Your task to perform on an android device: change the clock display to show seconds Image 0: 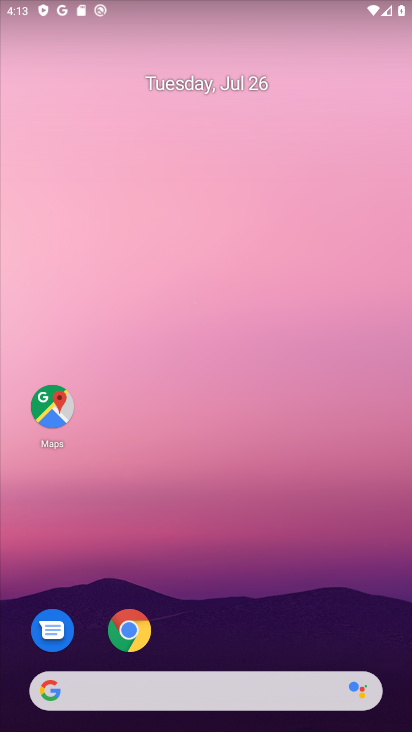
Step 0: drag from (314, 615) to (347, 27)
Your task to perform on an android device: change the clock display to show seconds Image 1: 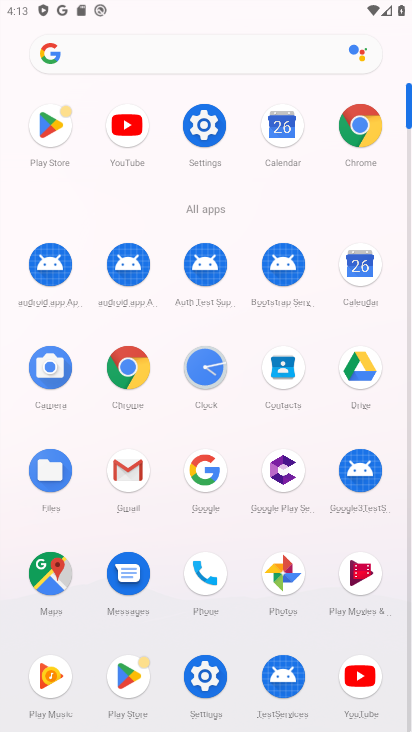
Step 1: click (216, 377)
Your task to perform on an android device: change the clock display to show seconds Image 2: 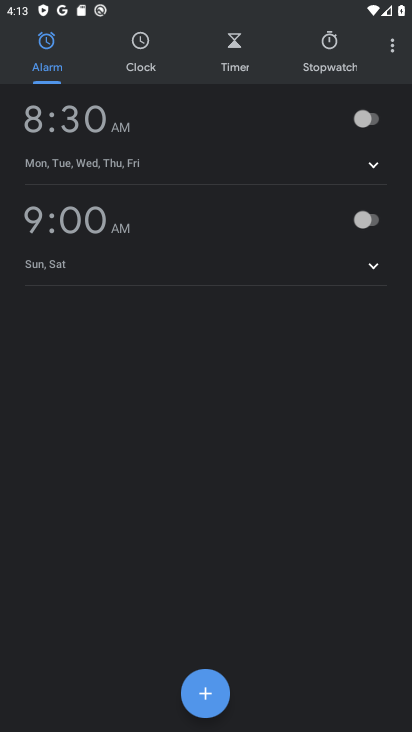
Step 2: click (388, 48)
Your task to perform on an android device: change the clock display to show seconds Image 3: 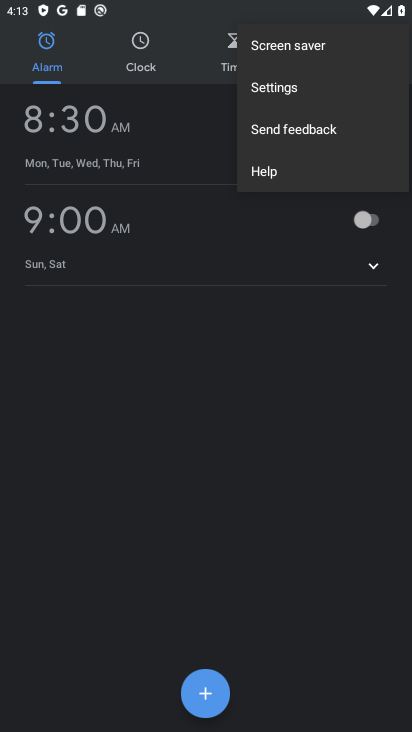
Step 3: click (271, 87)
Your task to perform on an android device: change the clock display to show seconds Image 4: 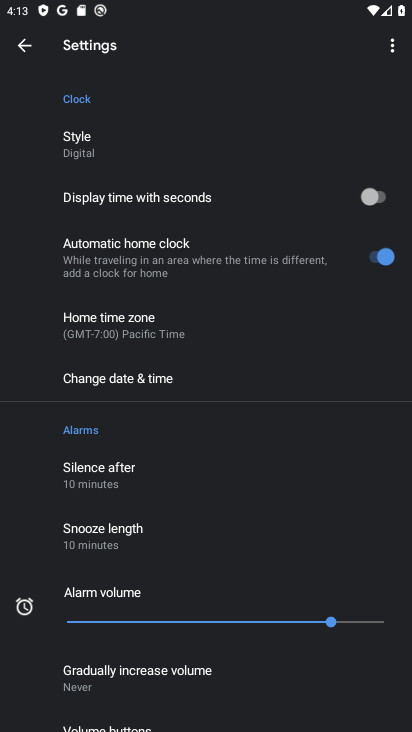
Step 4: click (384, 195)
Your task to perform on an android device: change the clock display to show seconds Image 5: 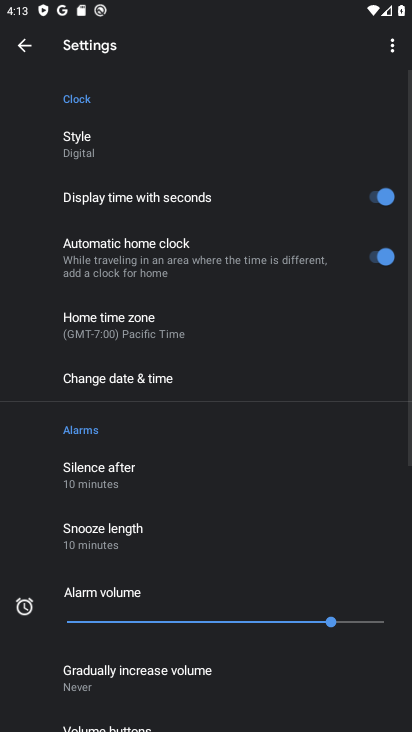
Step 5: task complete